Your task to perform on an android device: Empty the shopping cart on target.com. Add lg ultragear to the cart on target.com Image 0: 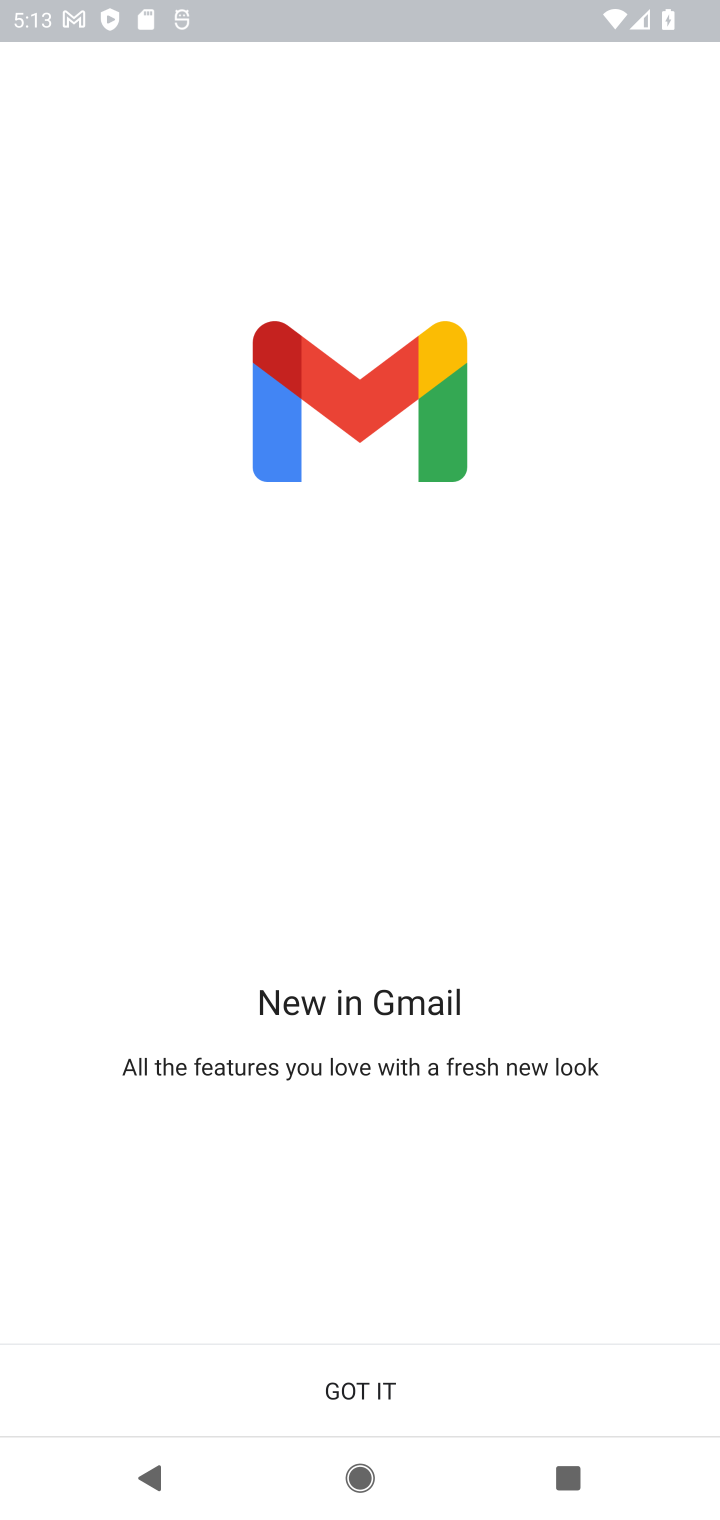
Step 0: press home button
Your task to perform on an android device: Empty the shopping cart on target.com. Add lg ultragear to the cart on target.com Image 1: 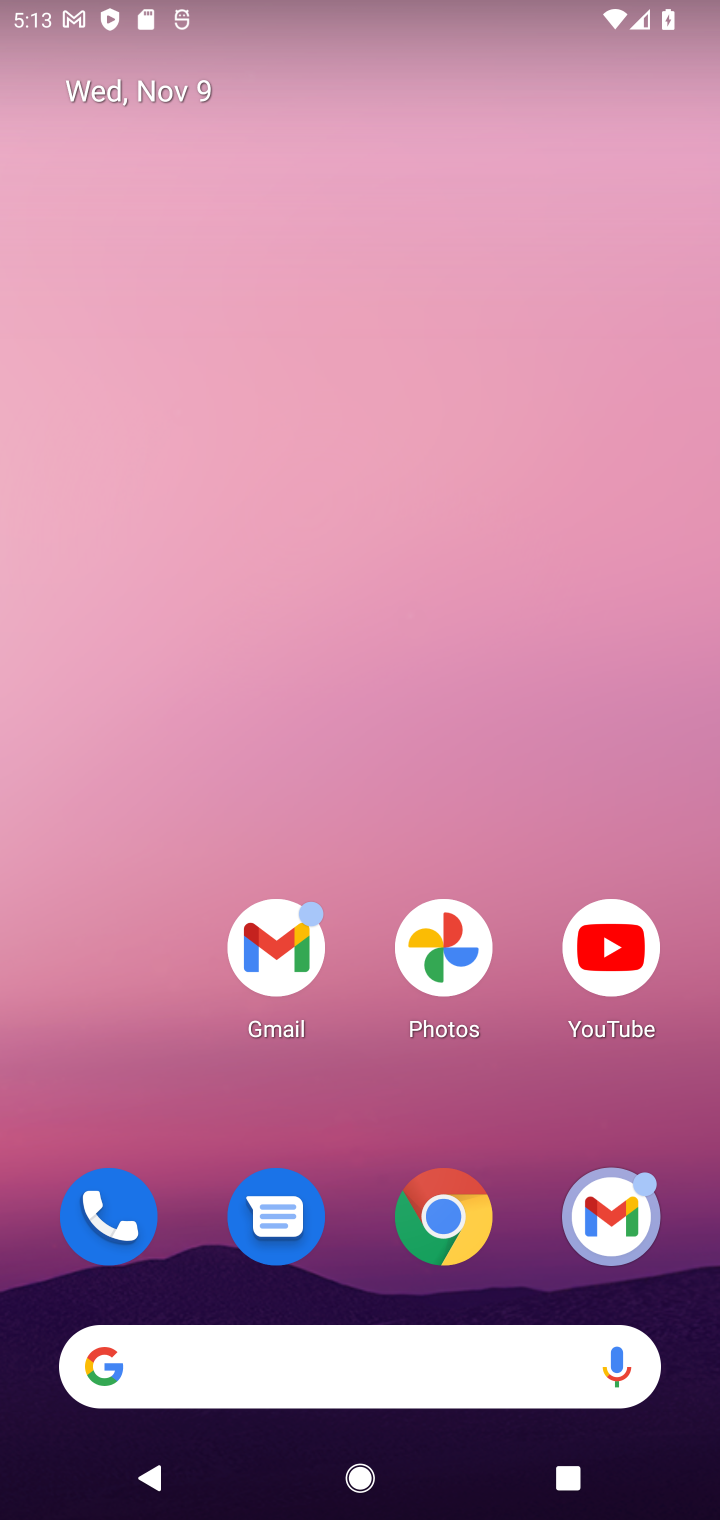
Step 1: drag from (406, 845) to (362, 16)
Your task to perform on an android device: Empty the shopping cart on target.com. Add lg ultragear to the cart on target.com Image 2: 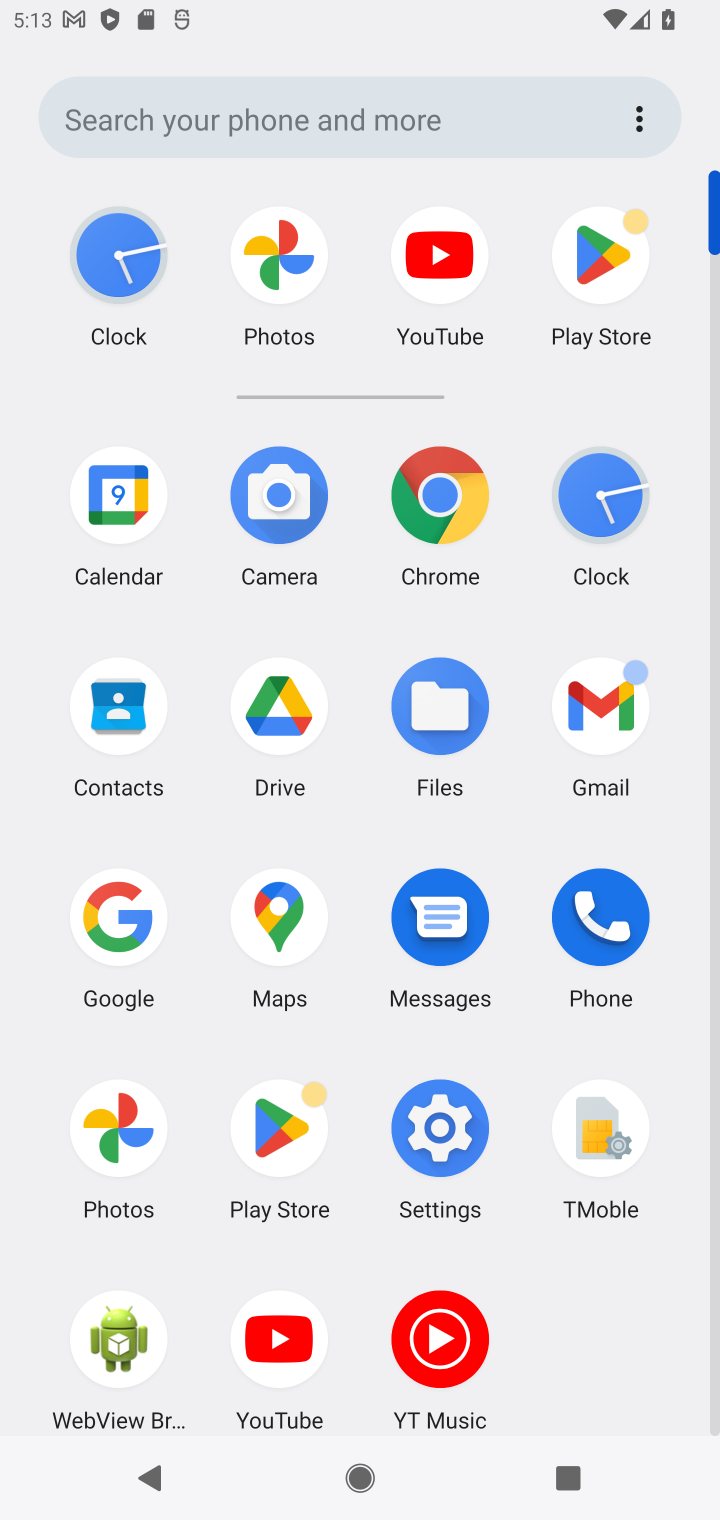
Step 2: click (451, 495)
Your task to perform on an android device: Empty the shopping cart on target.com. Add lg ultragear to the cart on target.com Image 3: 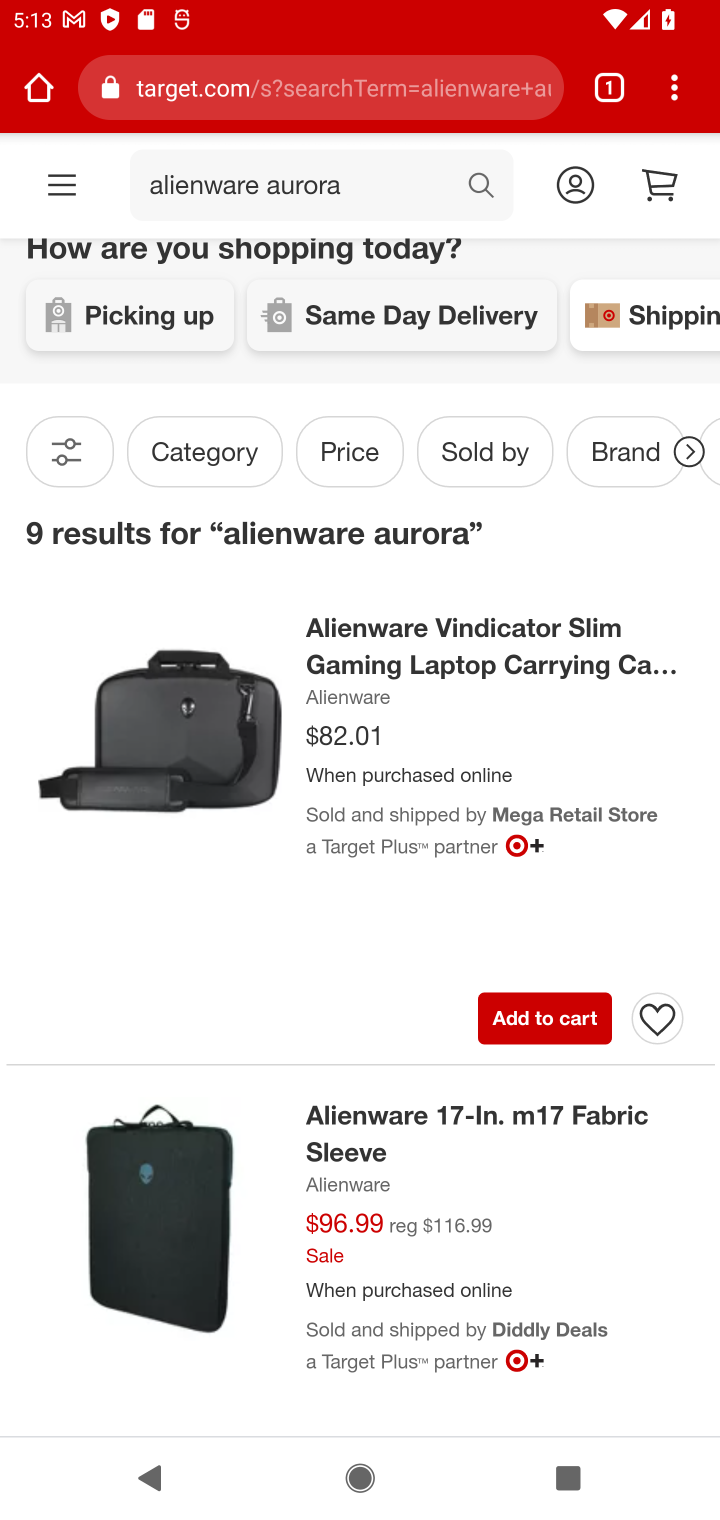
Step 3: click (334, 93)
Your task to perform on an android device: Empty the shopping cart on target.com. Add lg ultragear to the cart on target.com Image 4: 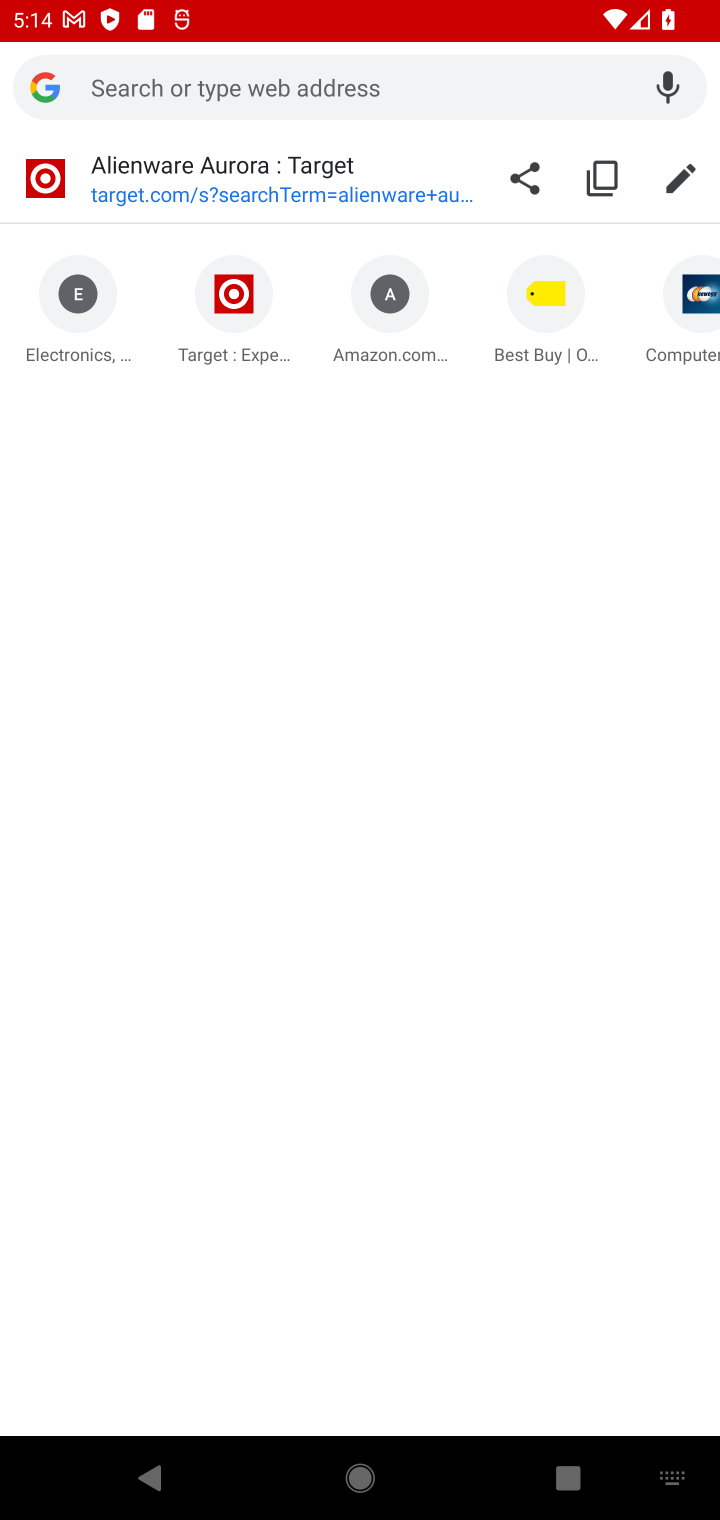
Step 4: type "target.com"
Your task to perform on an android device: Empty the shopping cart on target.com. Add lg ultragear to the cart on target.com Image 5: 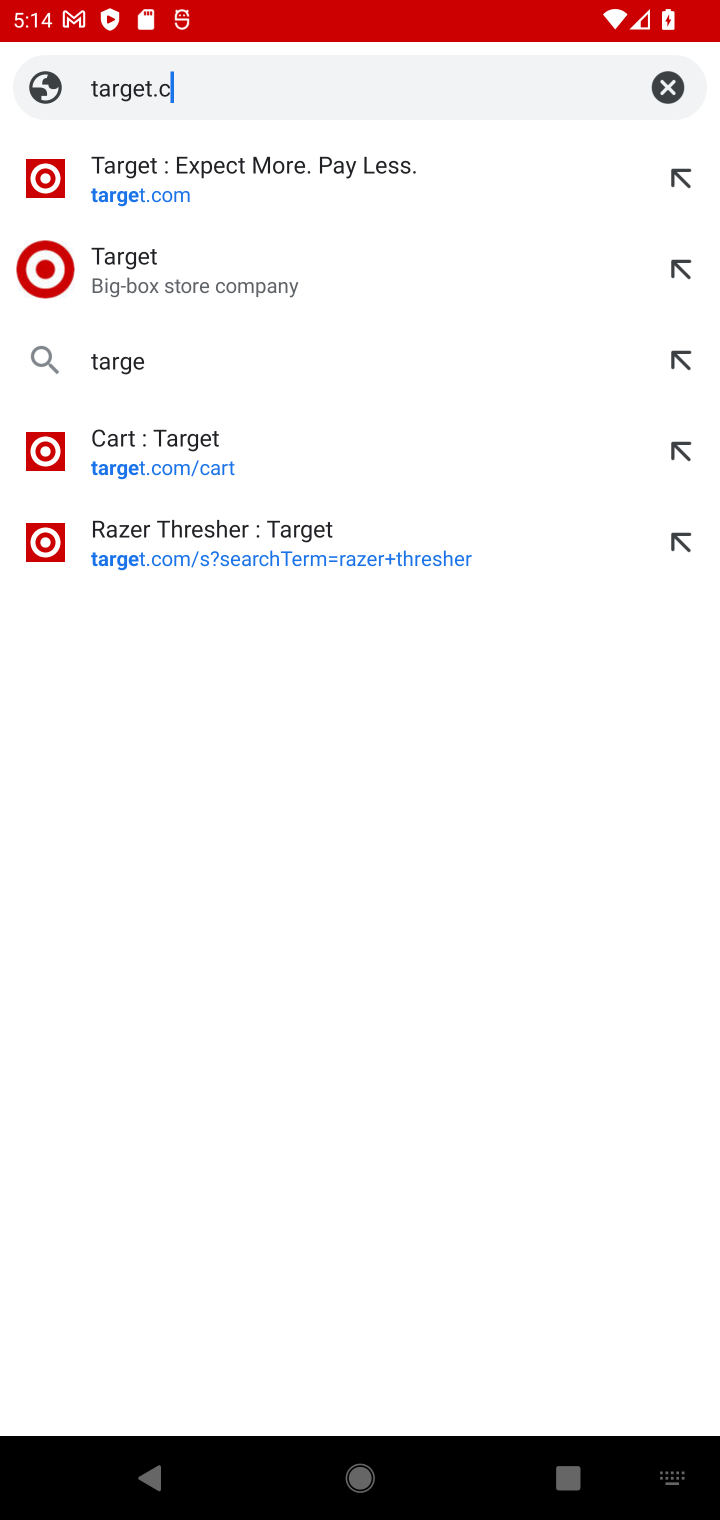
Step 5: press enter
Your task to perform on an android device: Empty the shopping cart on target.com. Add lg ultragear to the cart on target.com Image 6: 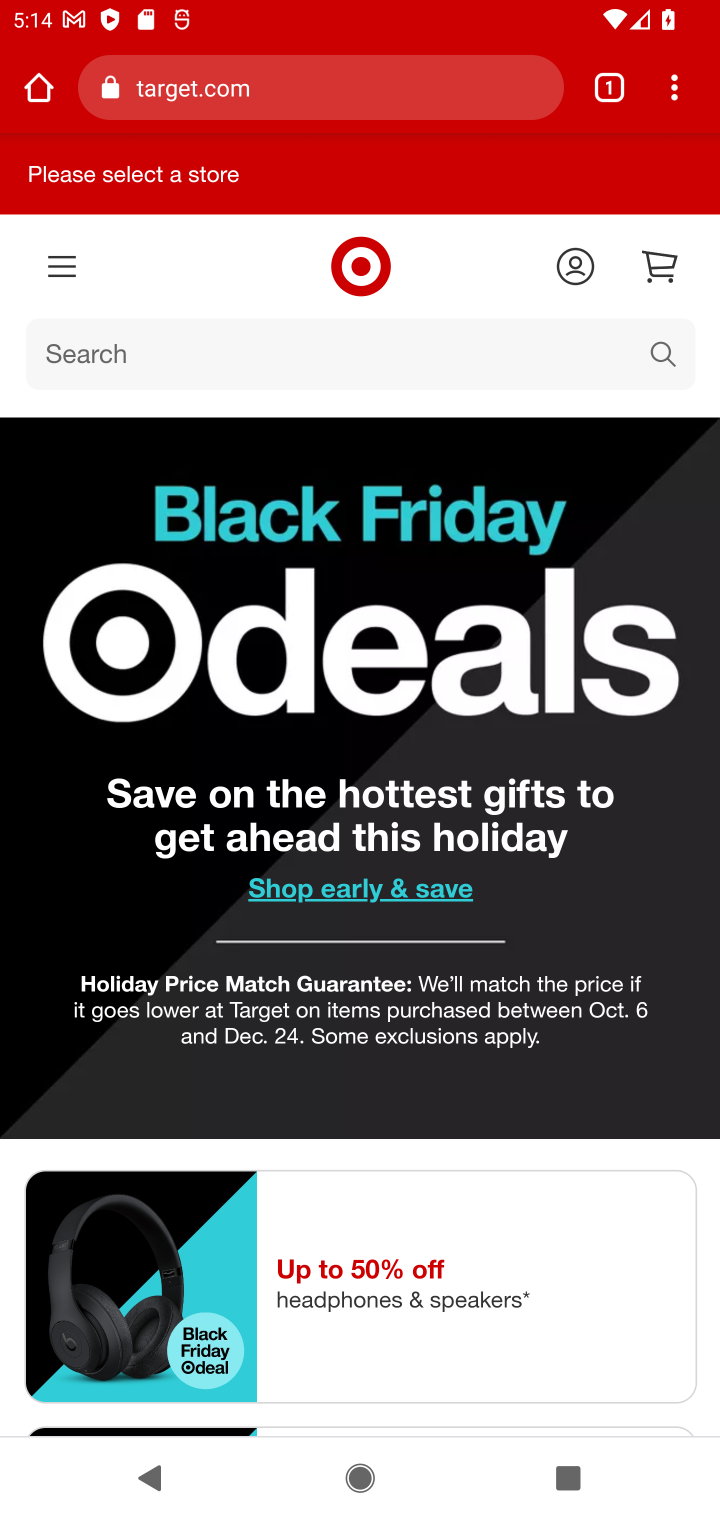
Step 6: click (661, 252)
Your task to perform on an android device: Empty the shopping cart on target.com. Add lg ultragear to the cart on target.com Image 7: 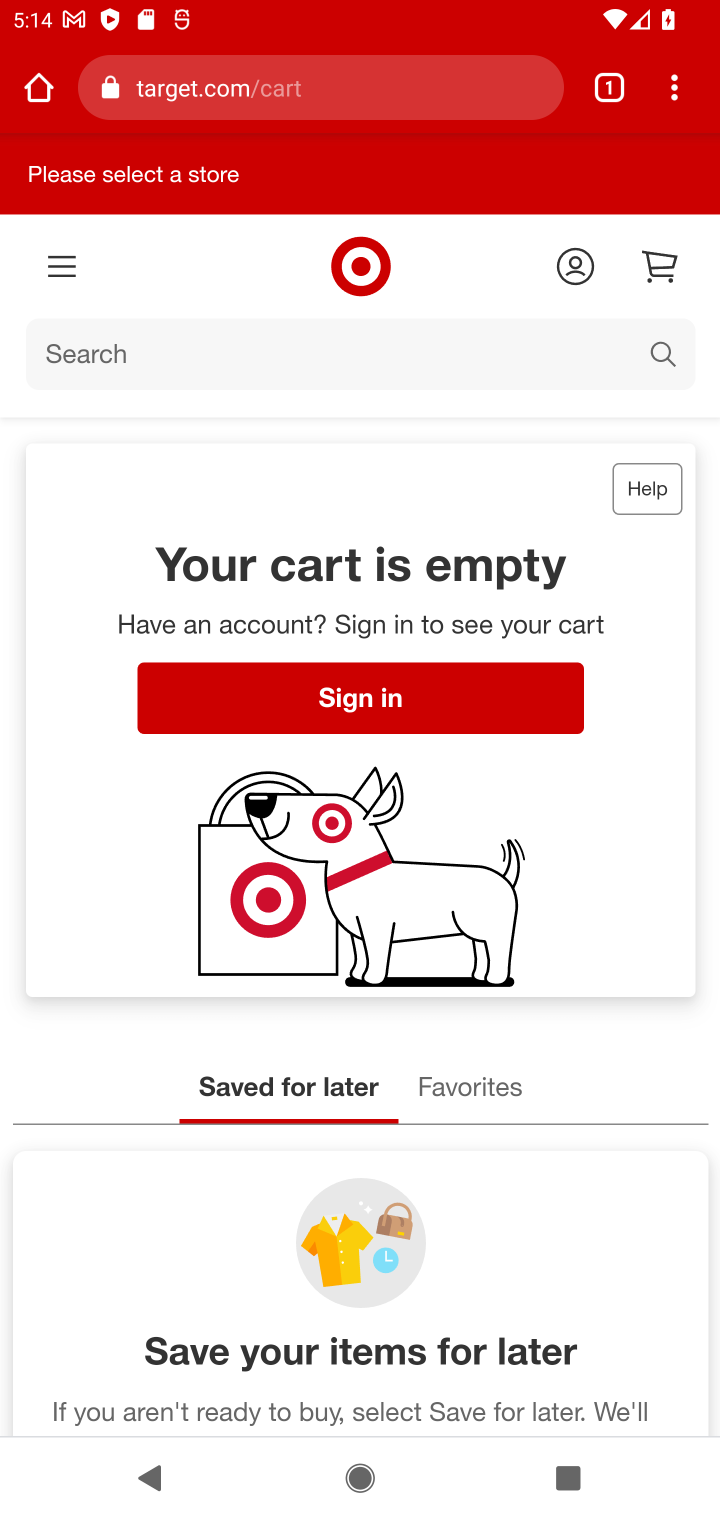
Step 7: click (379, 367)
Your task to perform on an android device: Empty the shopping cart on target.com. Add lg ultragear to the cart on target.com Image 8: 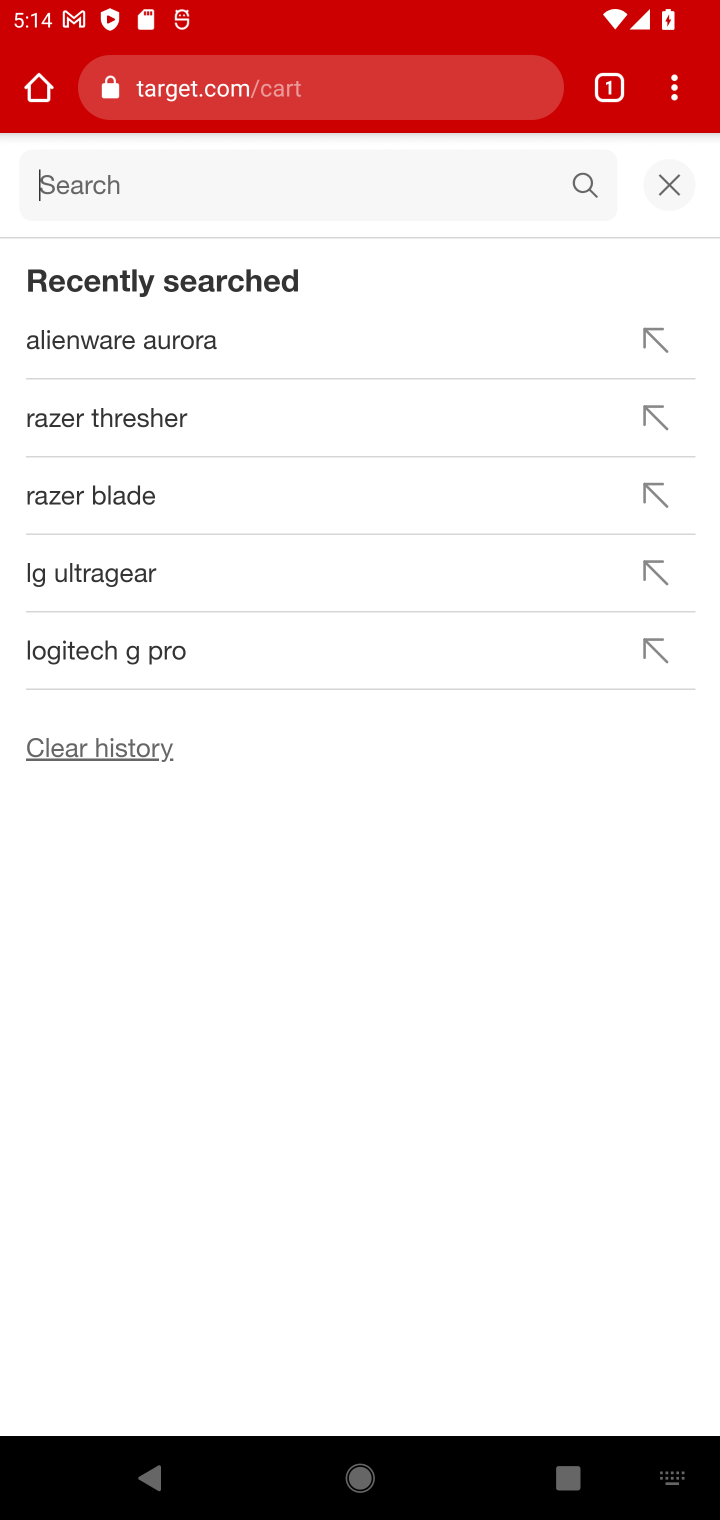
Step 8: type "lg ultragear"
Your task to perform on an android device: Empty the shopping cart on target.com. Add lg ultragear to the cart on target.com Image 9: 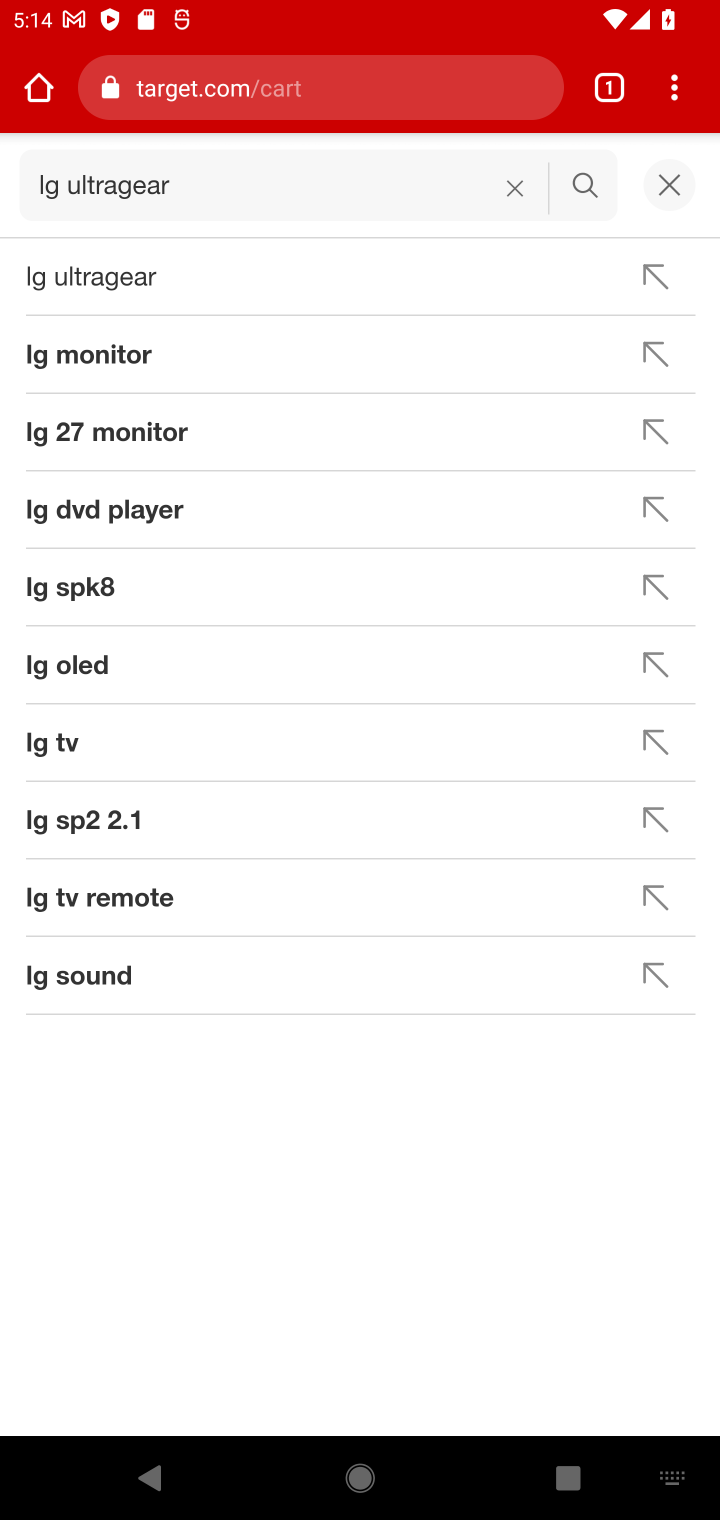
Step 9: press enter
Your task to perform on an android device: Empty the shopping cart on target.com. Add lg ultragear to the cart on target.com Image 10: 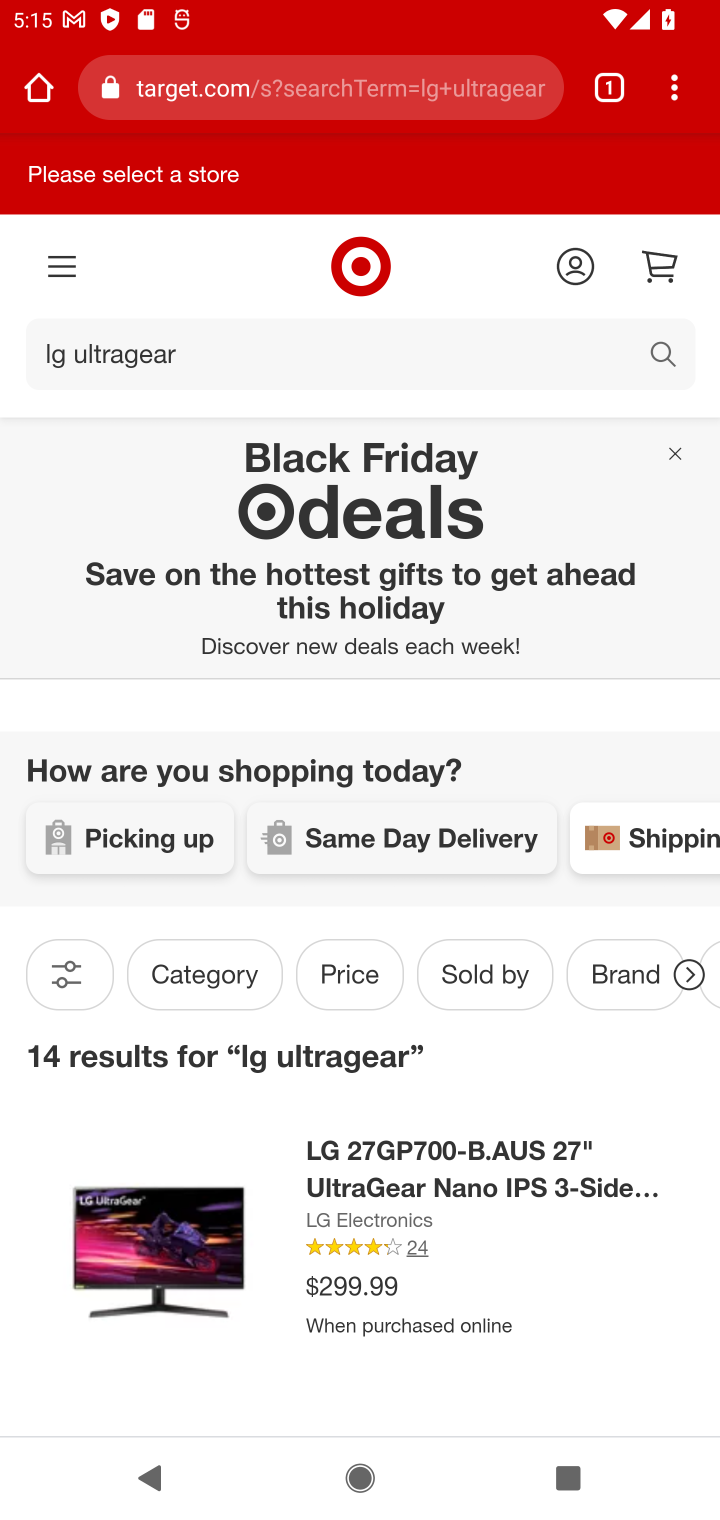
Step 10: drag from (424, 1306) to (456, 919)
Your task to perform on an android device: Empty the shopping cart on target.com. Add lg ultragear to the cart on target.com Image 11: 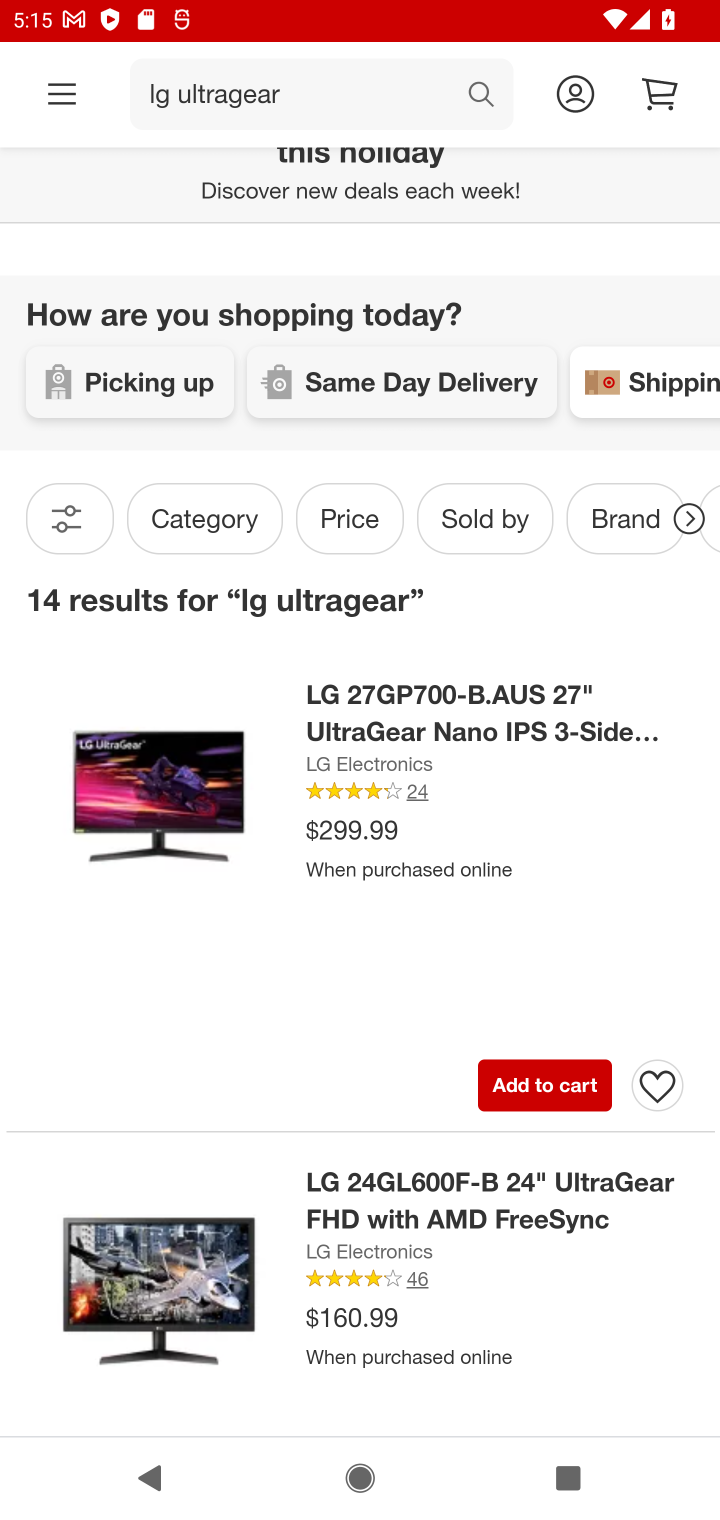
Step 11: click (551, 1093)
Your task to perform on an android device: Empty the shopping cart on target.com. Add lg ultragear to the cart on target.com Image 12: 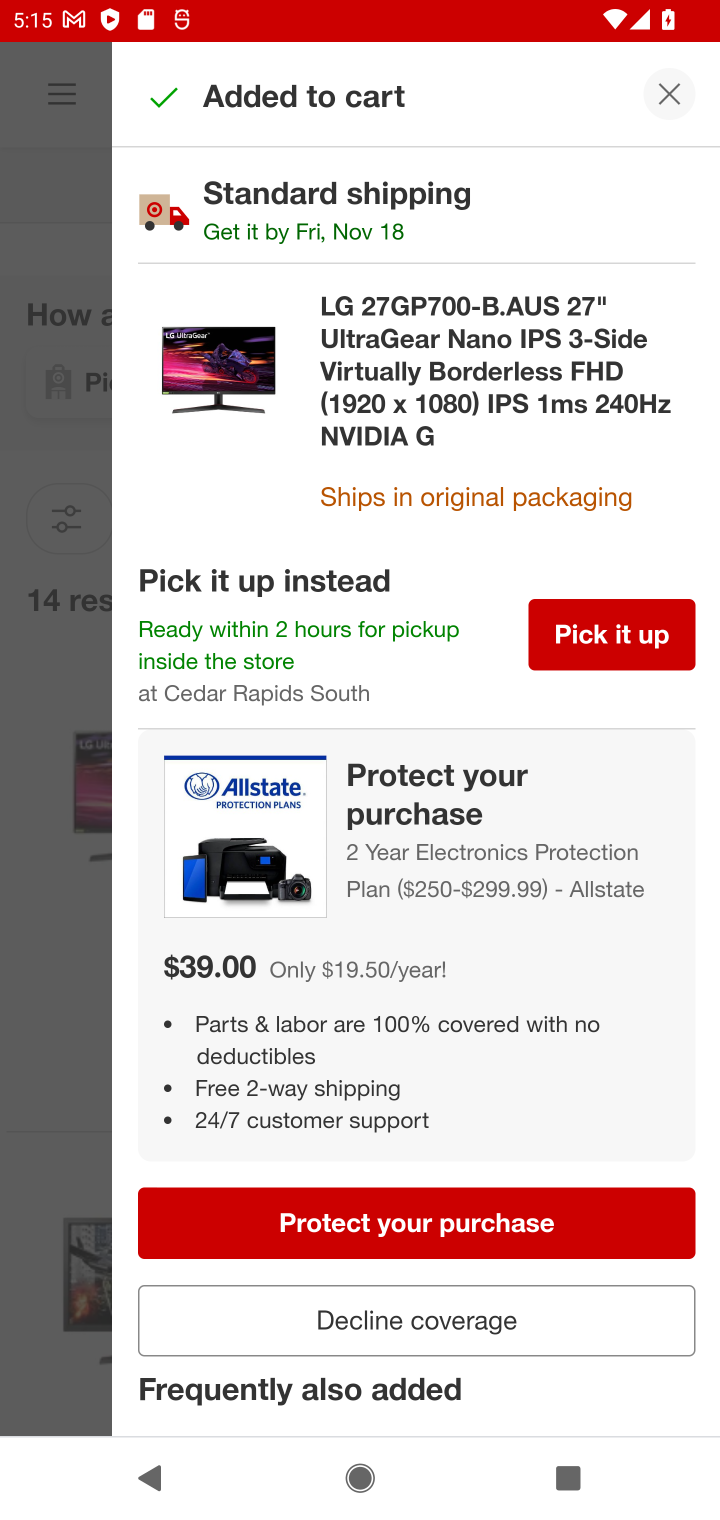
Step 12: task complete